Your task to perform on an android device: change the upload size in google photos Image 0: 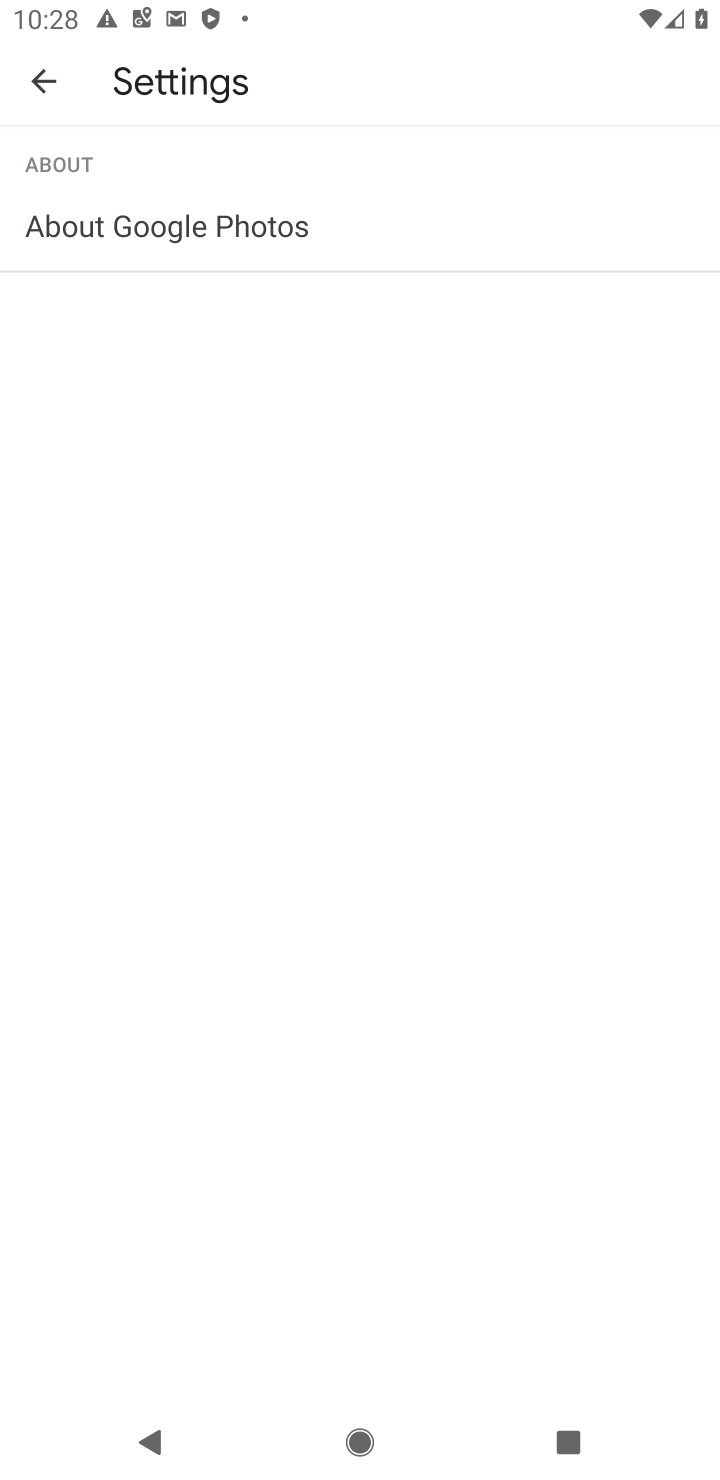
Step 0: drag from (424, 1166) to (492, 397)
Your task to perform on an android device: change the upload size in google photos Image 1: 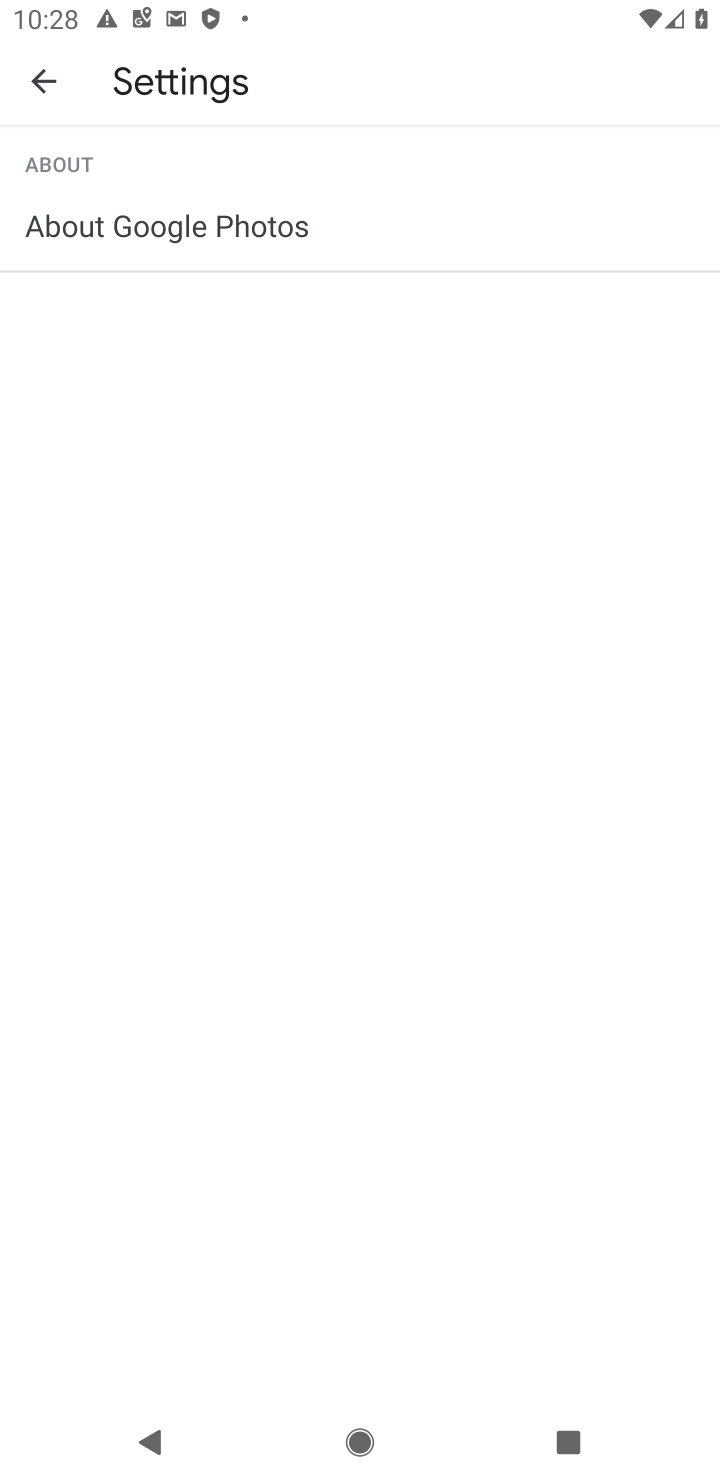
Step 1: drag from (327, 1025) to (439, 263)
Your task to perform on an android device: change the upload size in google photos Image 2: 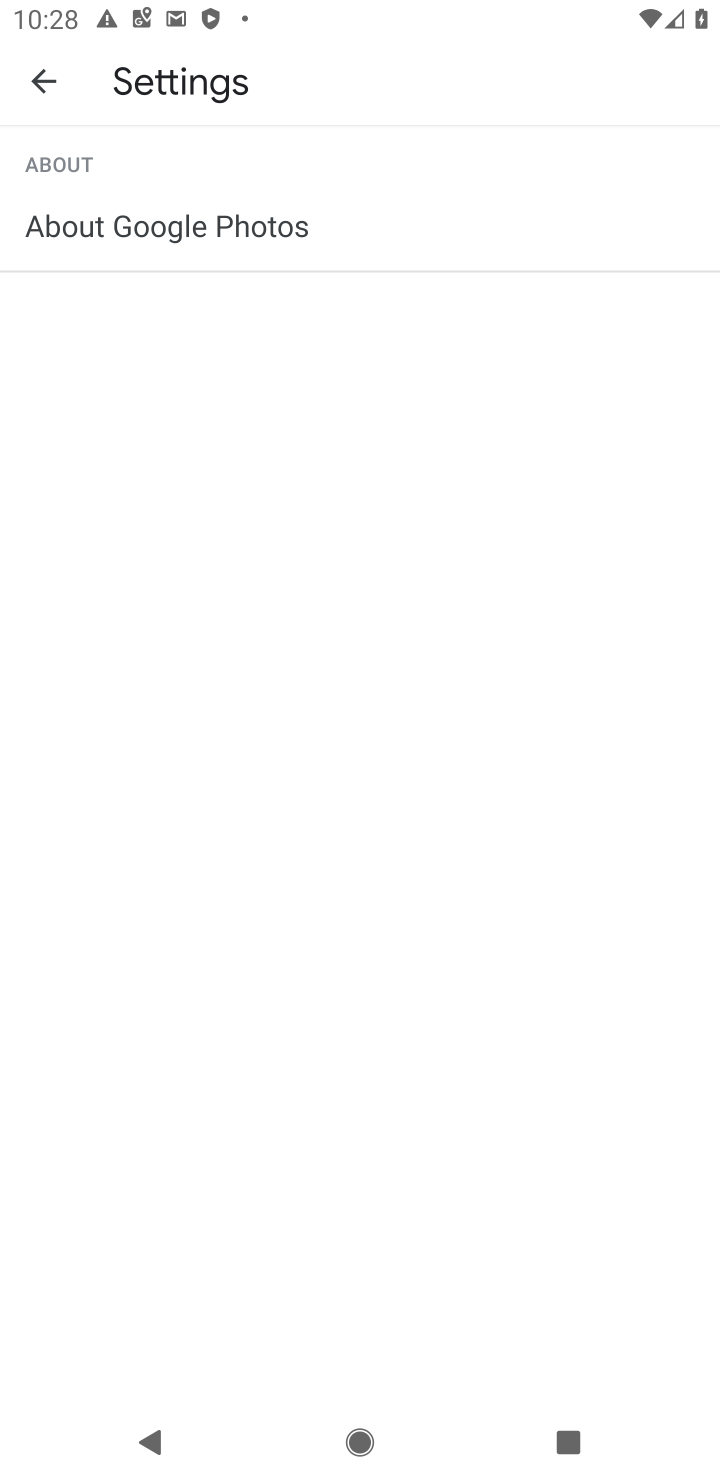
Step 2: drag from (432, 1115) to (479, 394)
Your task to perform on an android device: change the upload size in google photos Image 3: 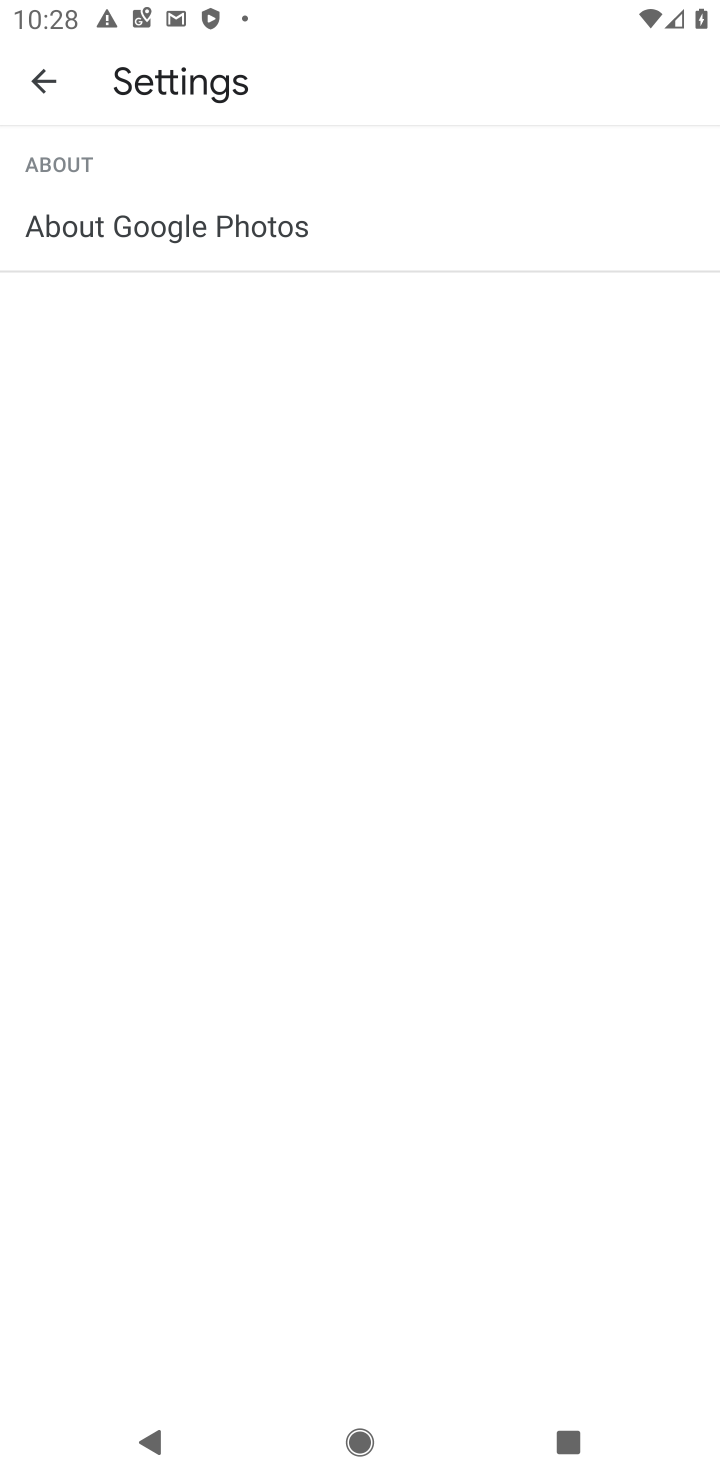
Step 3: drag from (385, 1108) to (505, 518)
Your task to perform on an android device: change the upload size in google photos Image 4: 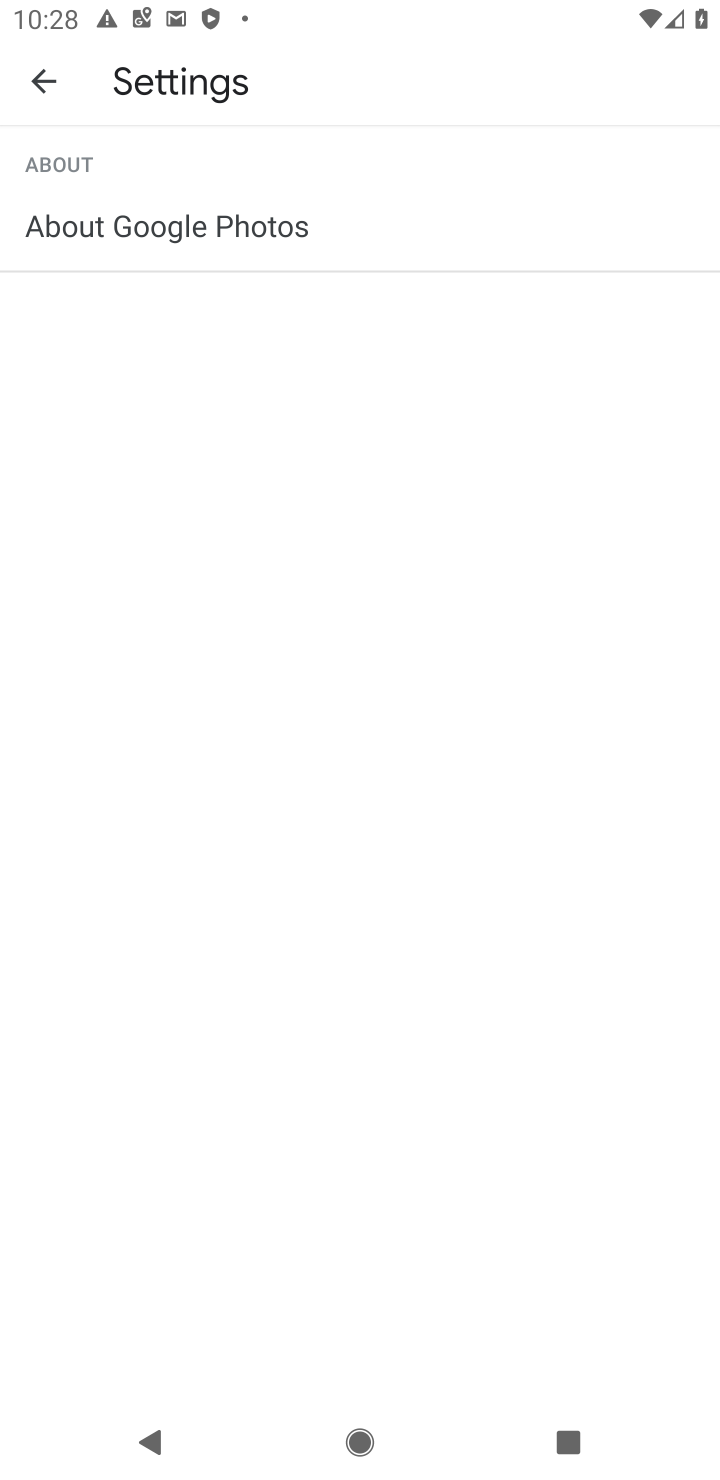
Step 4: drag from (479, 1107) to (468, 599)
Your task to perform on an android device: change the upload size in google photos Image 5: 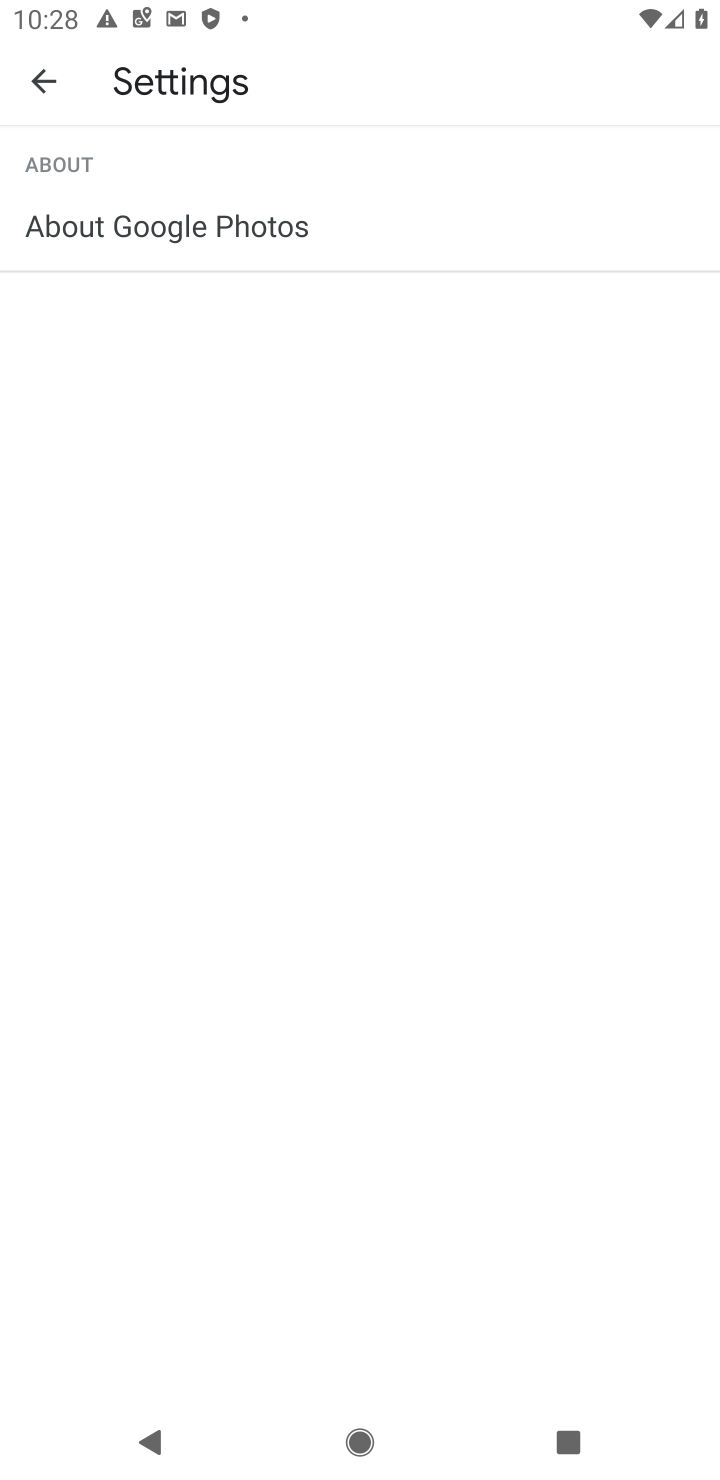
Step 5: drag from (319, 1133) to (371, 617)
Your task to perform on an android device: change the upload size in google photos Image 6: 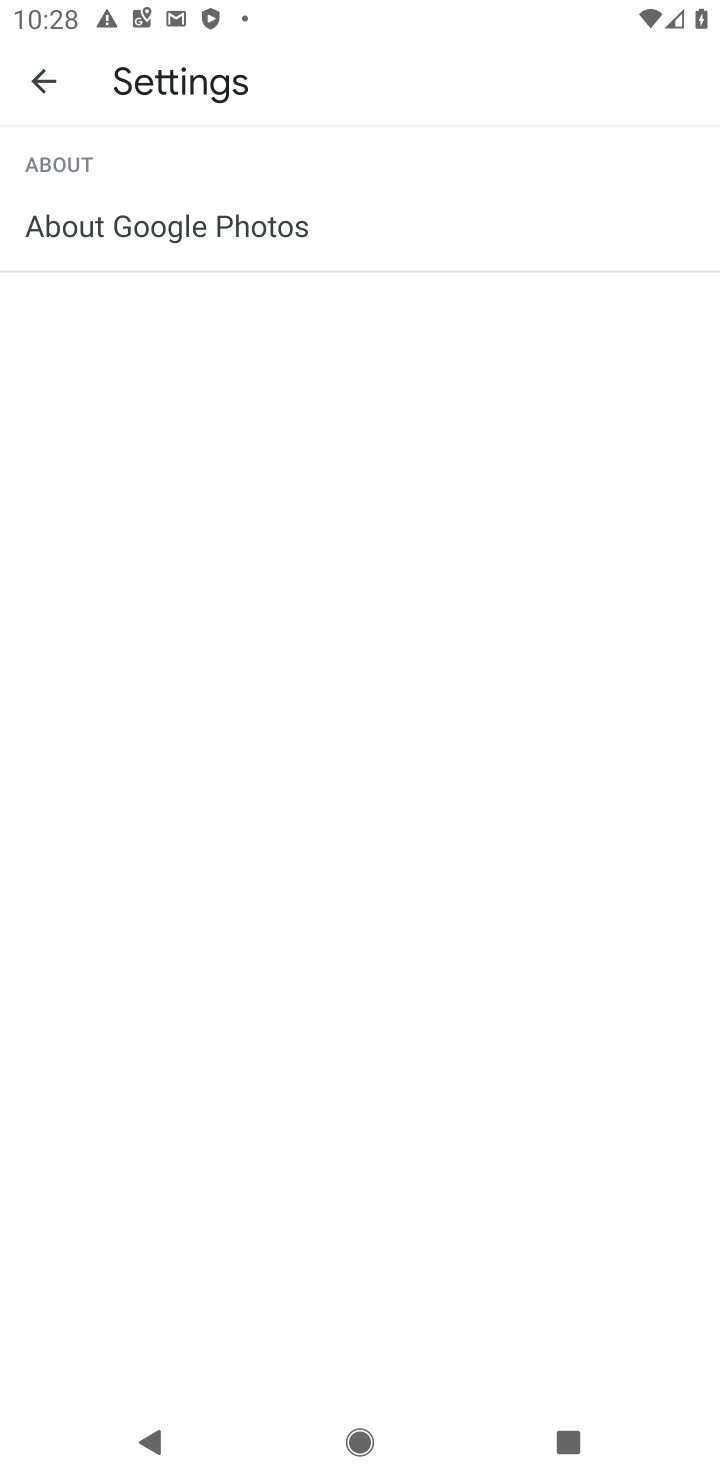
Step 6: drag from (354, 923) to (364, 594)
Your task to perform on an android device: change the upload size in google photos Image 7: 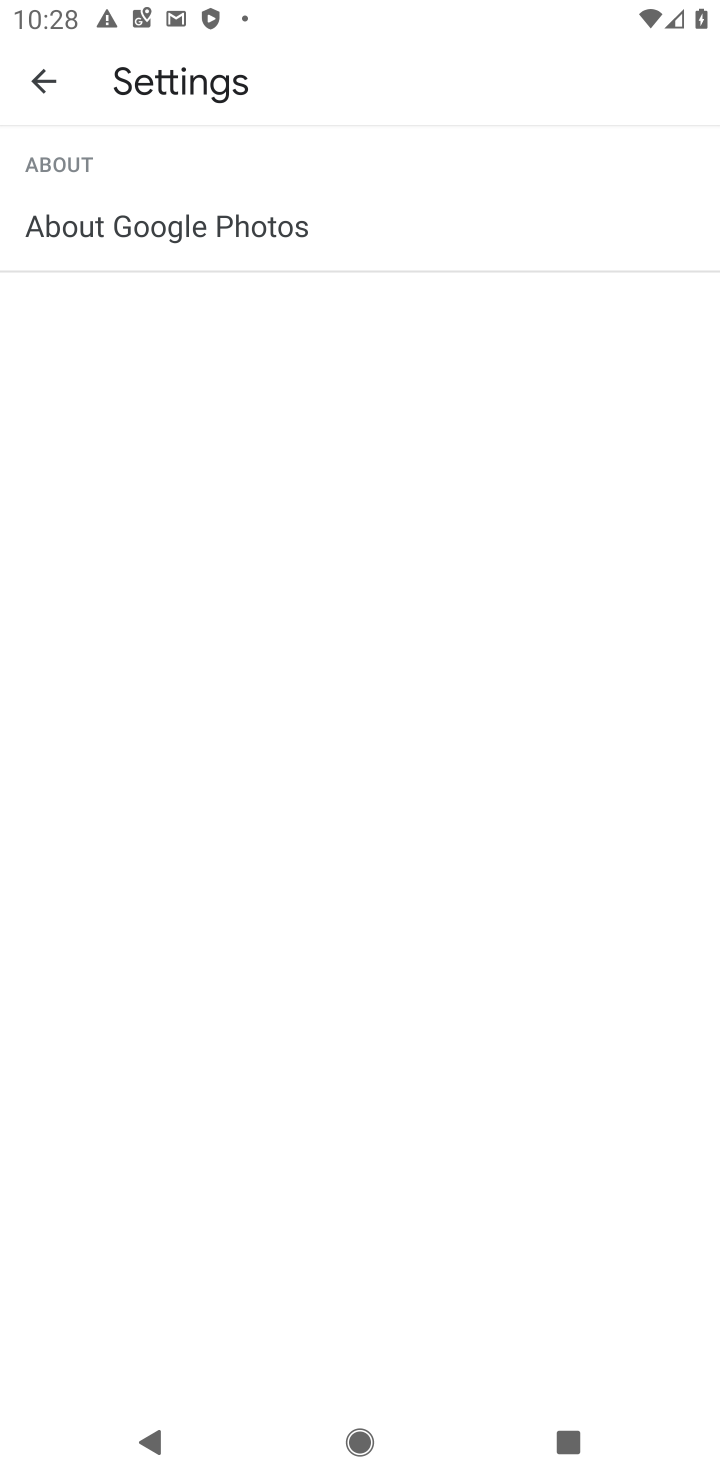
Step 7: press home button
Your task to perform on an android device: change the upload size in google photos Image 8: 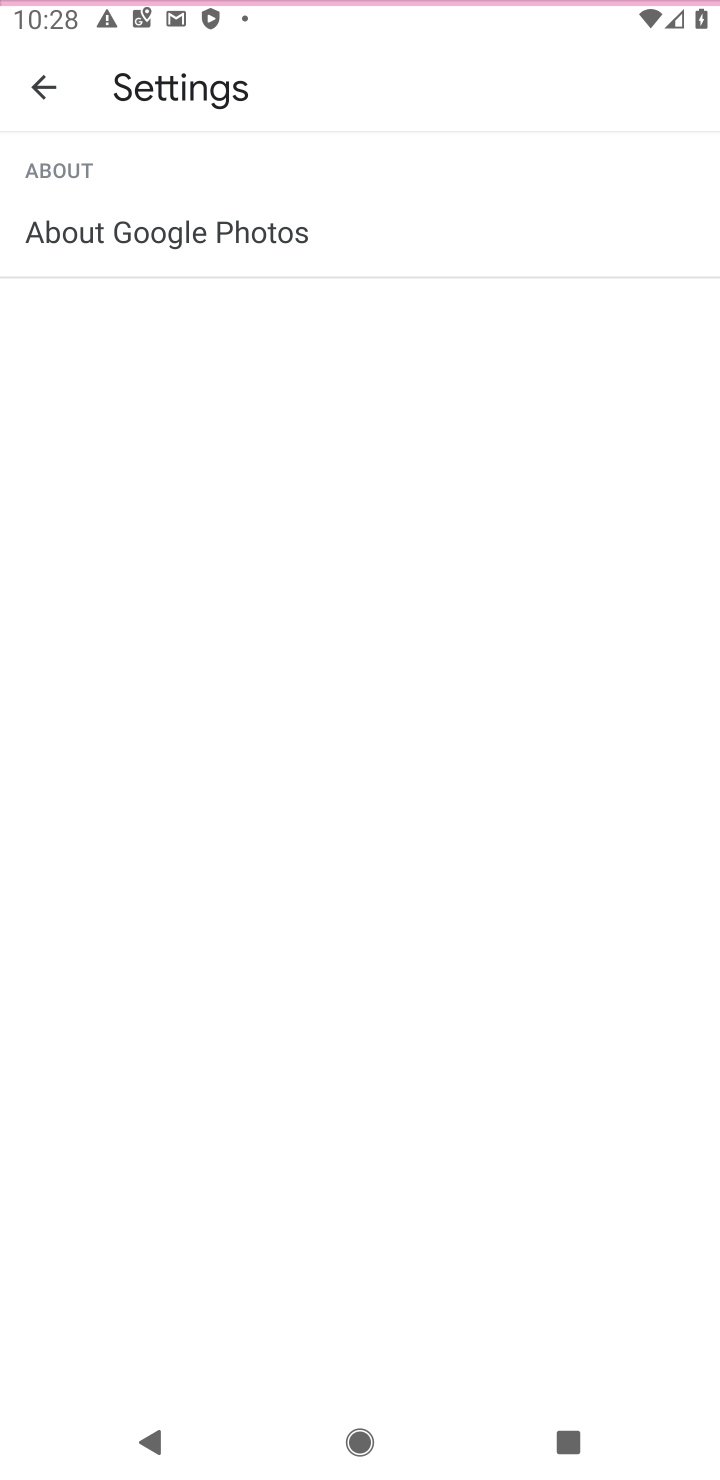
Step 8: drag from (381, 928) to (482, 201)
Your task to perform on an android device: change the upload size in google photos Image 9: 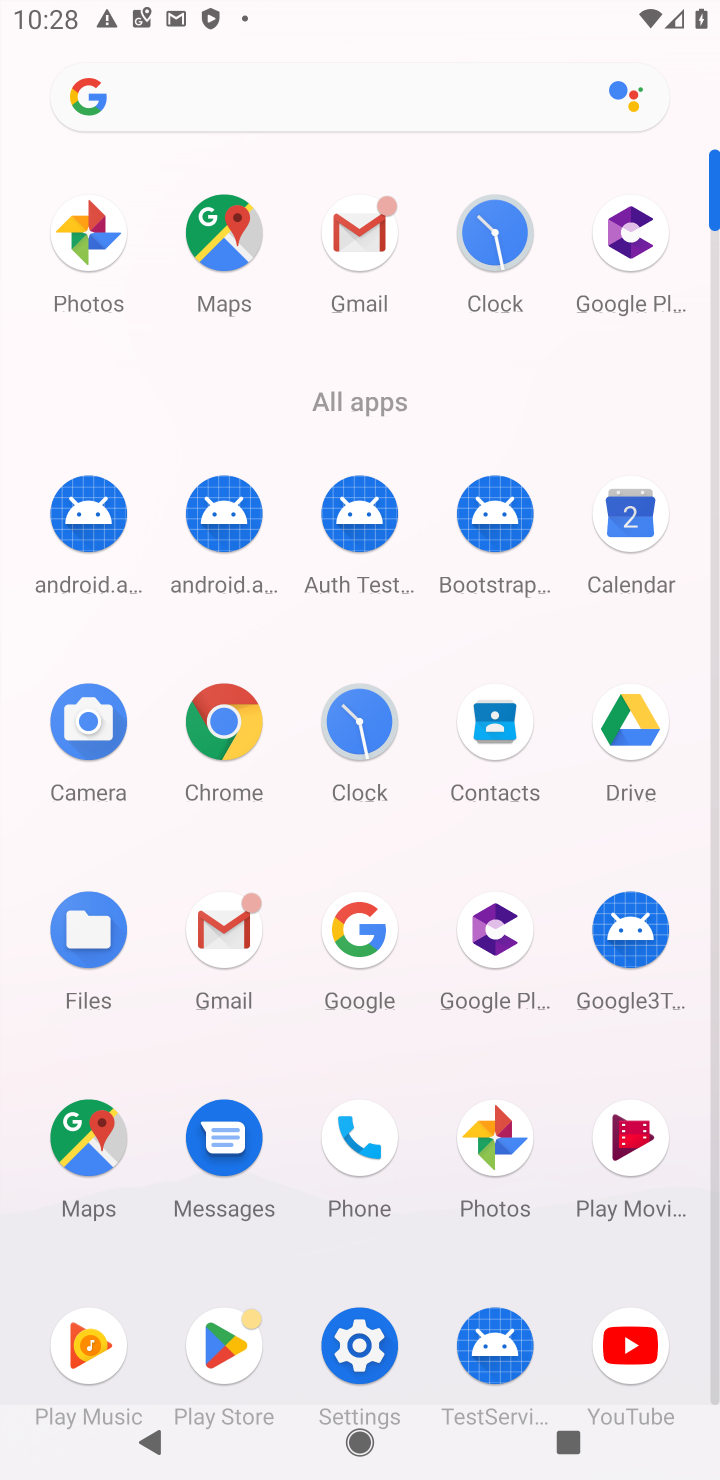
Step 9: drag from (370, 1285) to (452, 278)
Your task to perform on an android device: change the upload size in google photos Image 10: 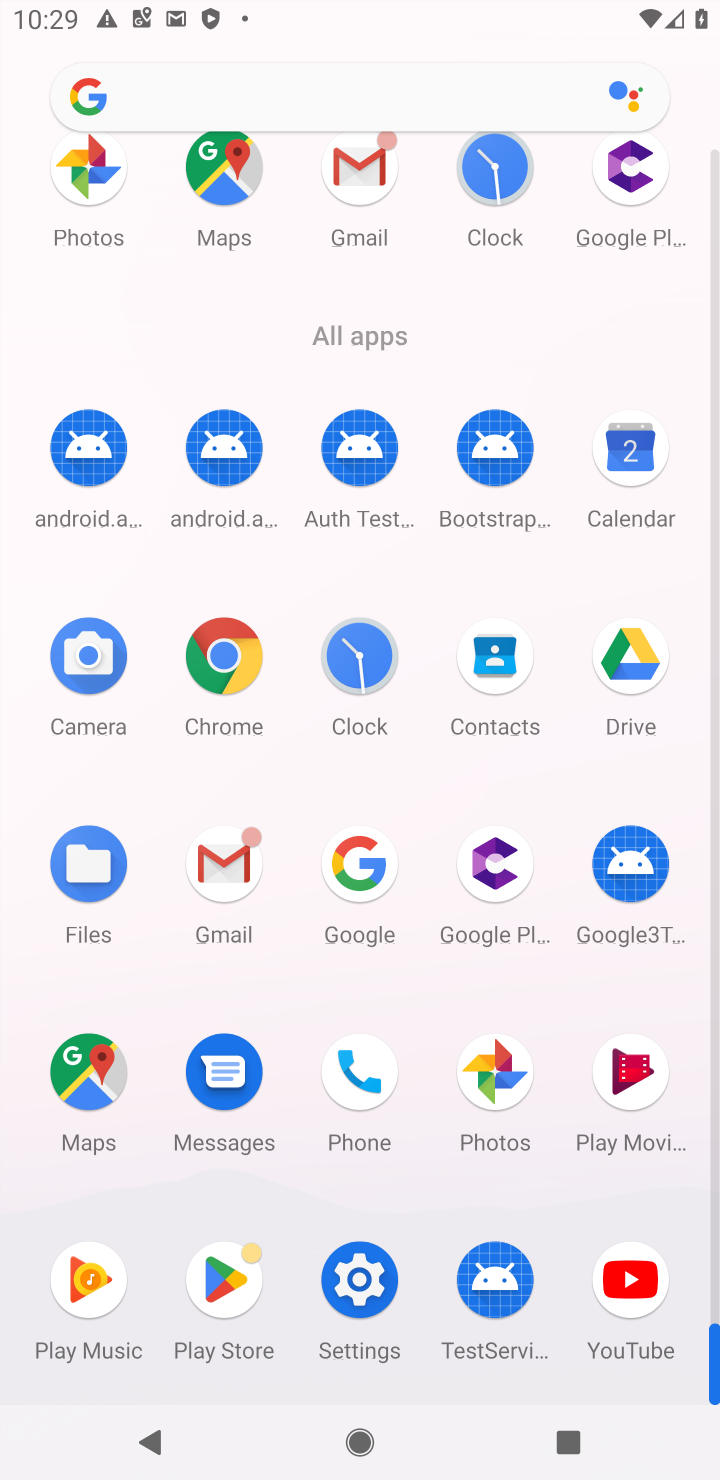
Step 10: click (490, 1050)
Your task to perform on an android device: change the upload size in google photos Image 11: 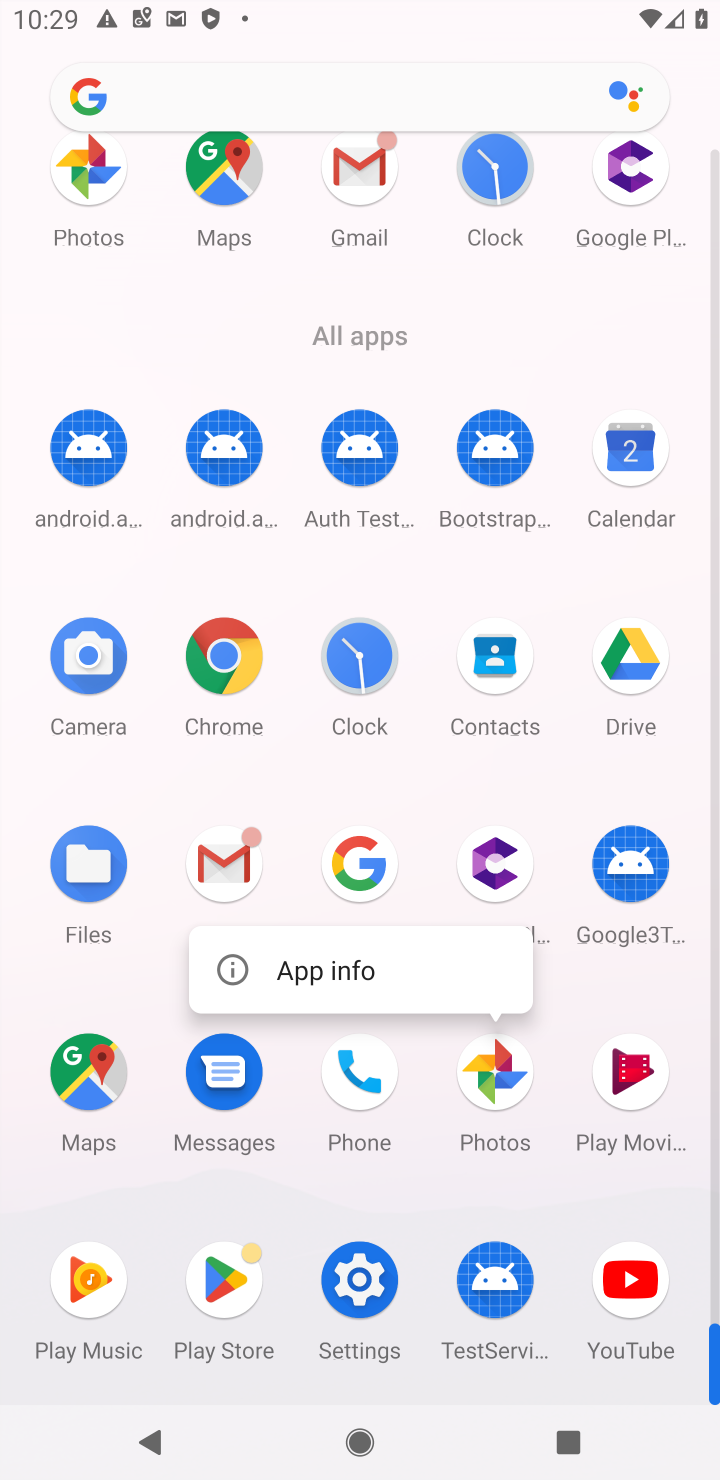
Step 11: click (348, 965)
Your task to perform on an android device: change the upload size in google photos Image 12: 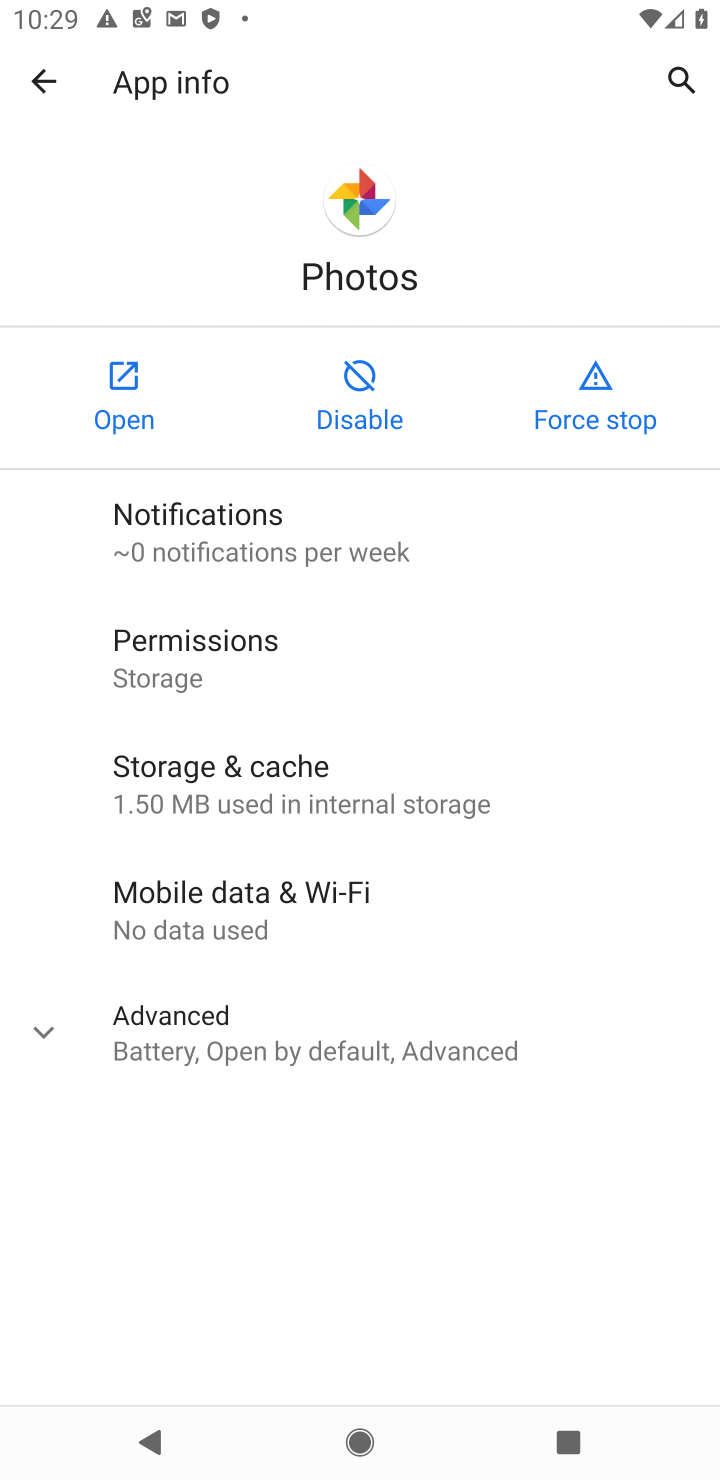
Step 12: click (104, 414)
Your task to perform on an android device: change the upload size in google photos Image 13: 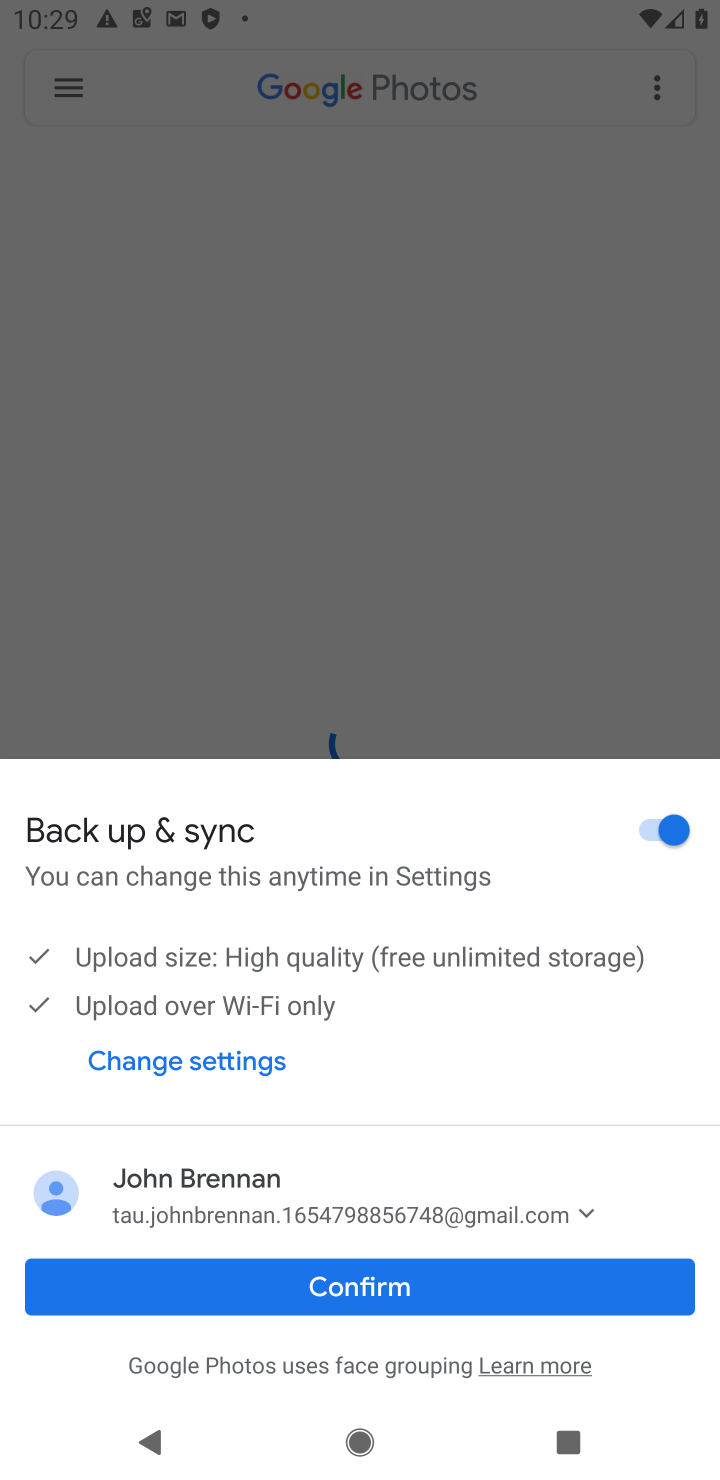
Step 13: click (281, 1278)
Your task to perform on an android device: change the upload size in google photos Image 14: 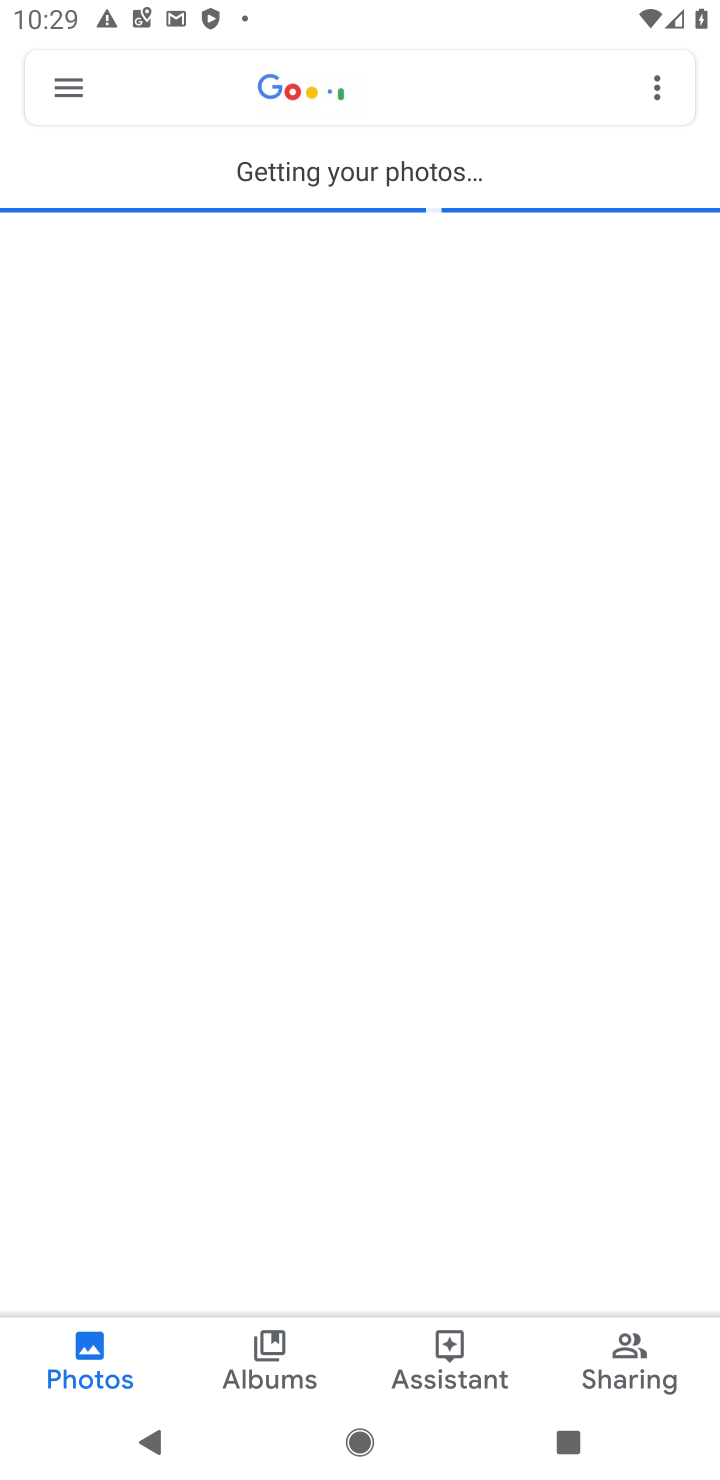
Step 14: click (49, 83)
Your task to perform on an android device: change the upload size in google photos Image 15: 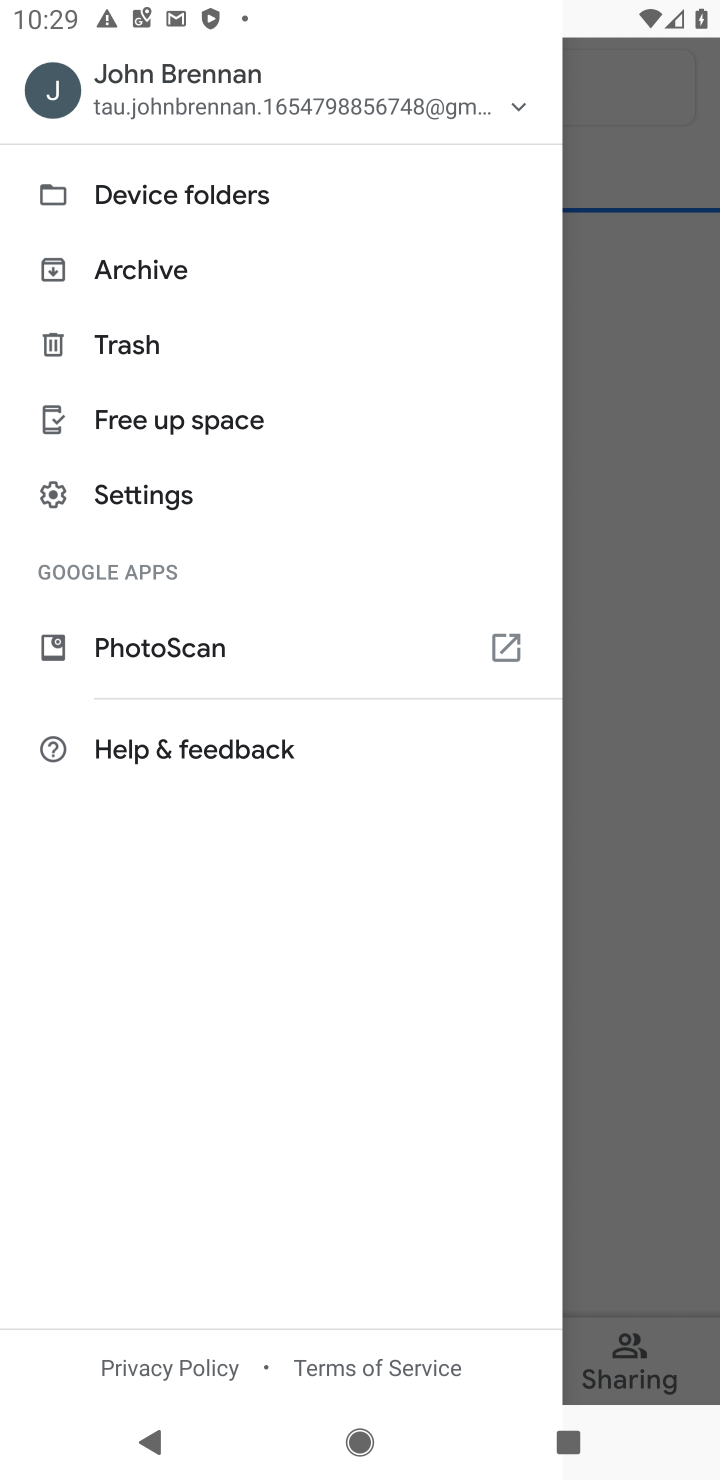
Step 15: click (121, 479)
Your task to perform on an android device: change the upload size in google photos Image 16: 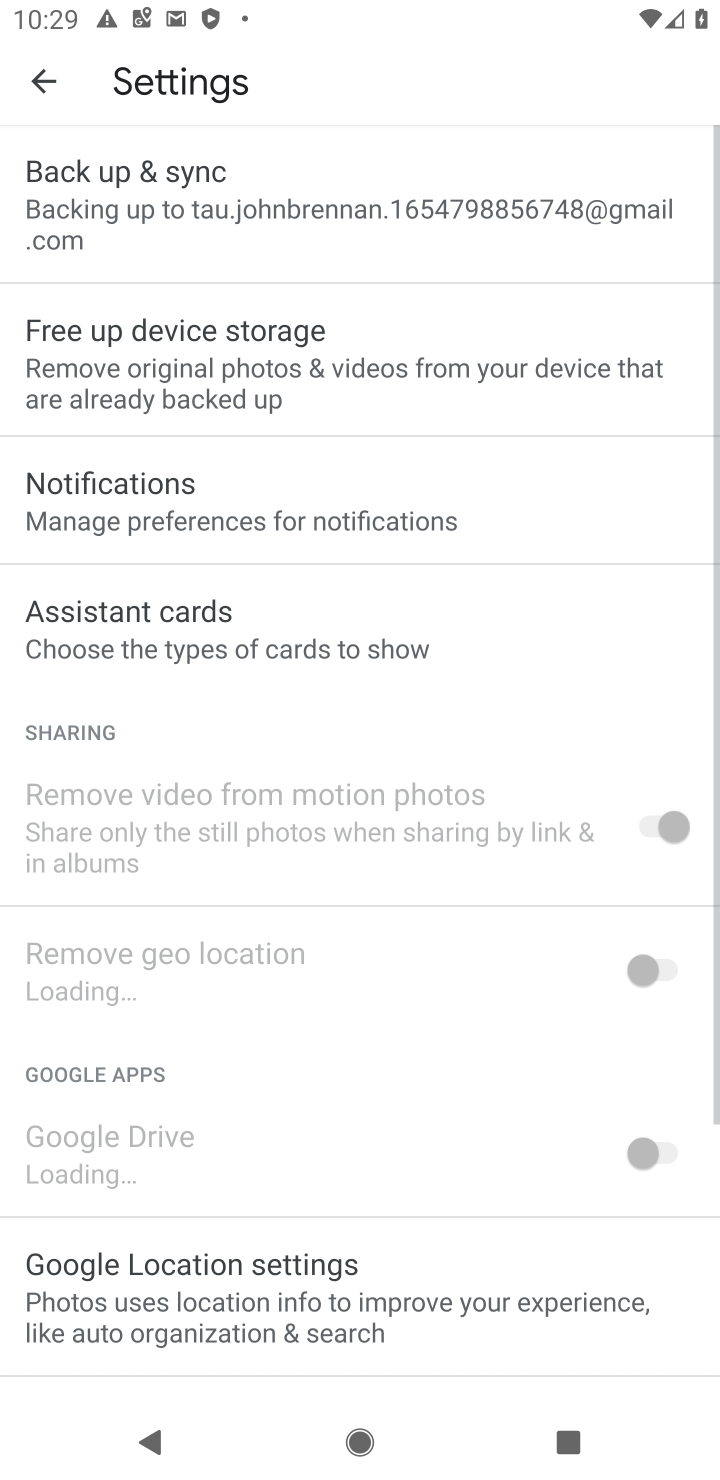
Step 16: click (152, 208)
Your task to perform on an android device: change the upload size in google photos Image 17: 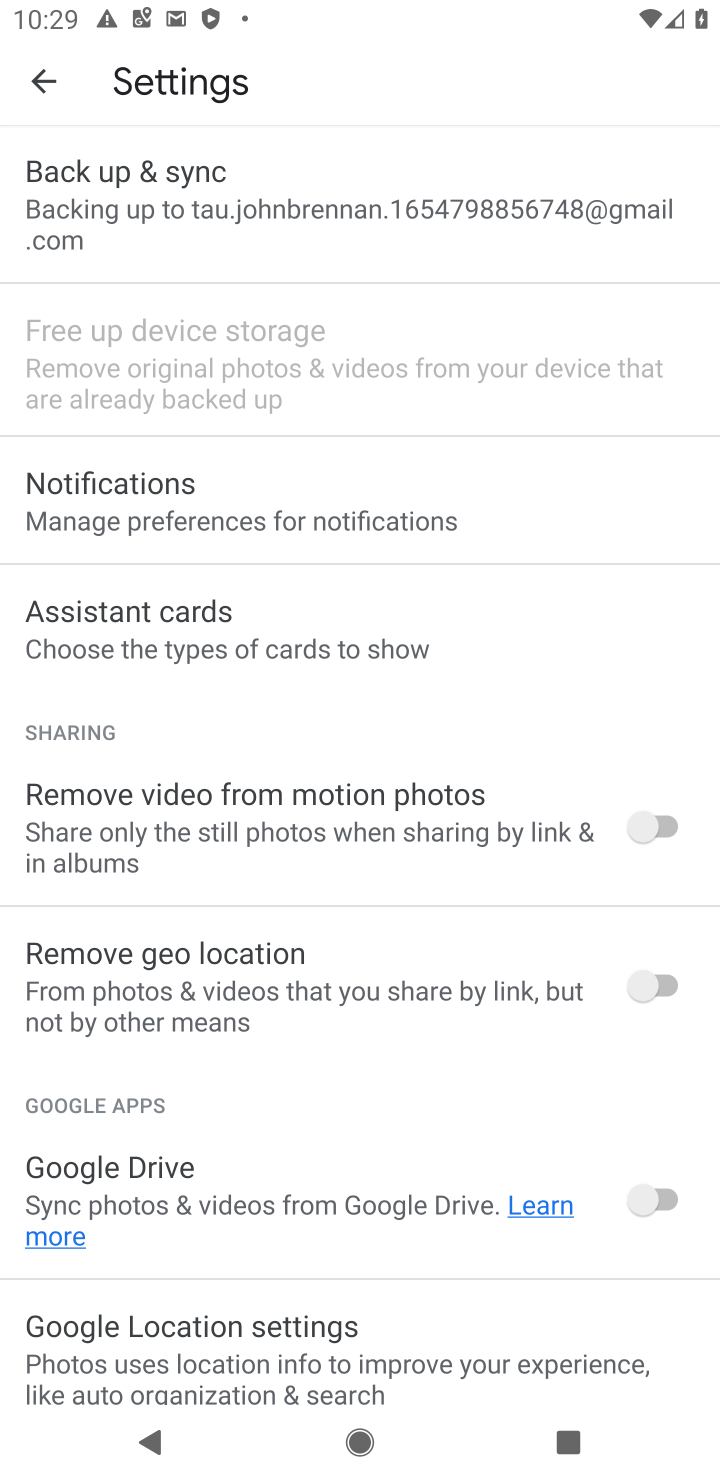
Step 17: click (155, 222)
Your task to perform on an android device: change the upload size in google photos Image 18: 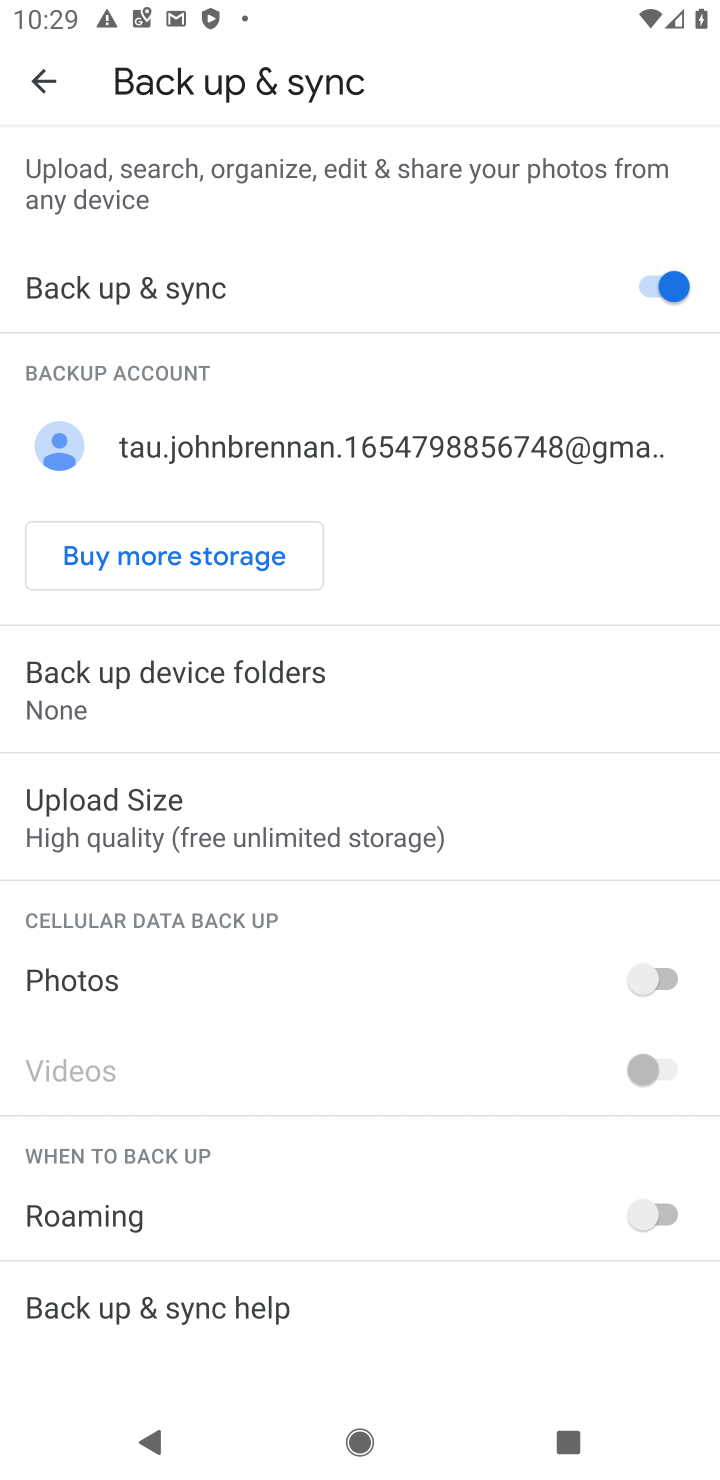
Step 18: click (214, 829)
Your task to perform on an android device: change the upload size in google photos Image 19: 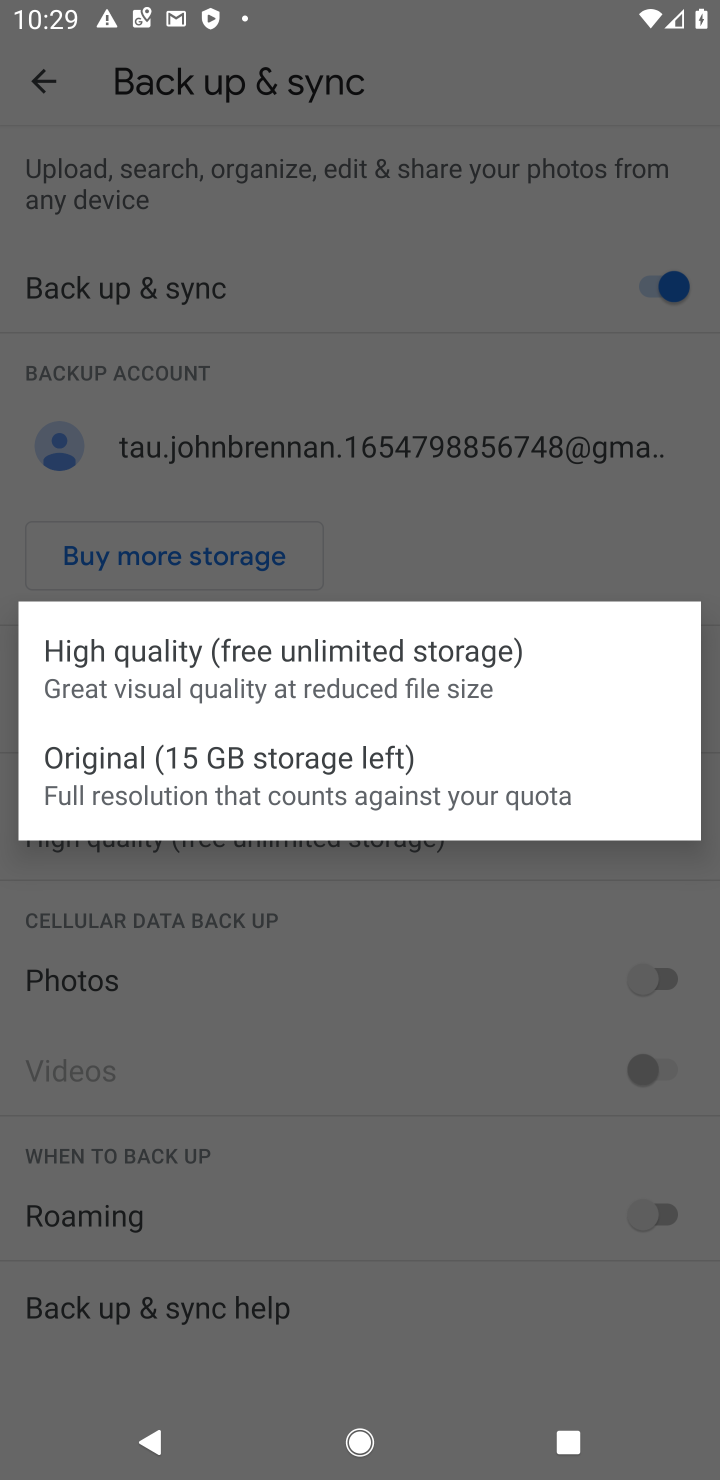
Step 19: click (355, 750)
Your task to perform on an android device: change the upload size in google photos Image 20: 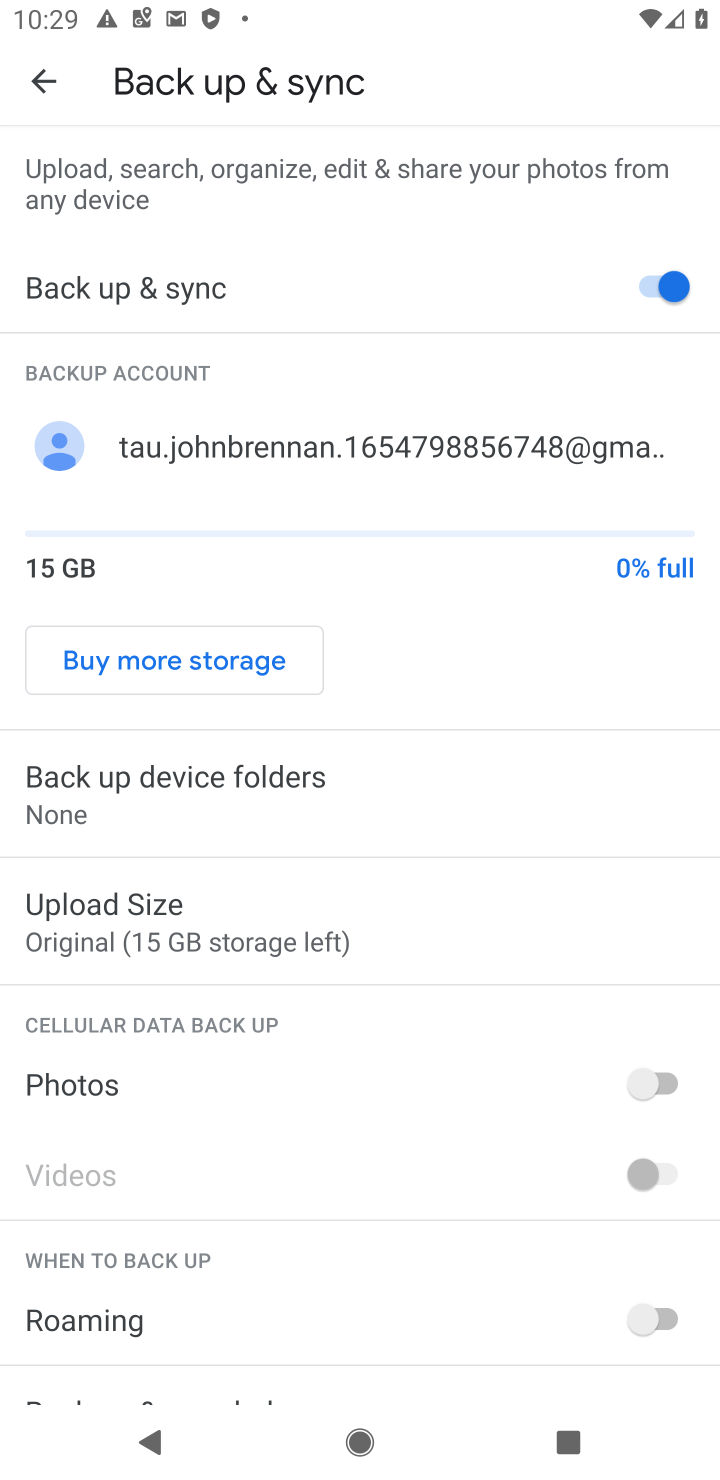
Step 20: task complete